Your task to perform on an android device: Open the stopwatch Image 0: 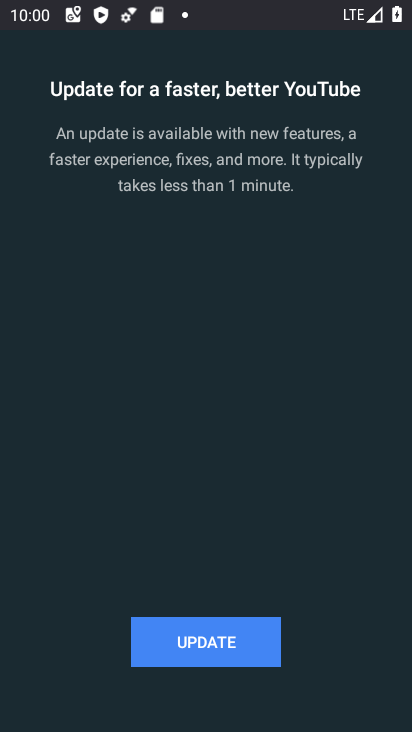
Step 0: press home button
Your task to perform on an android device: Open the stopwatch Image 1: 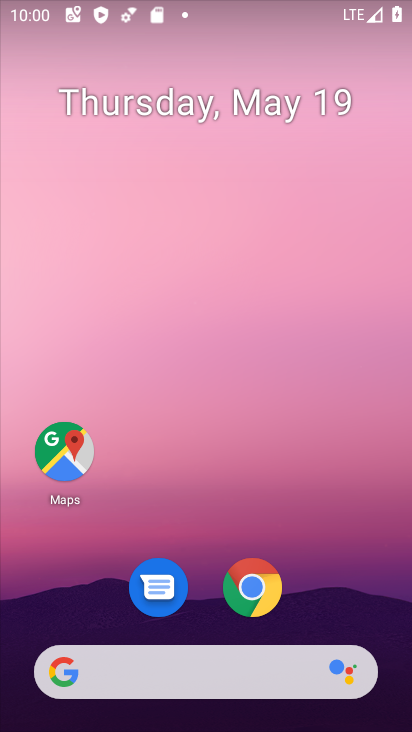
Step 1: drag from (202, 617) to (251, 100)
Your task to perform on an android device: Open the stopwatch Image 2: 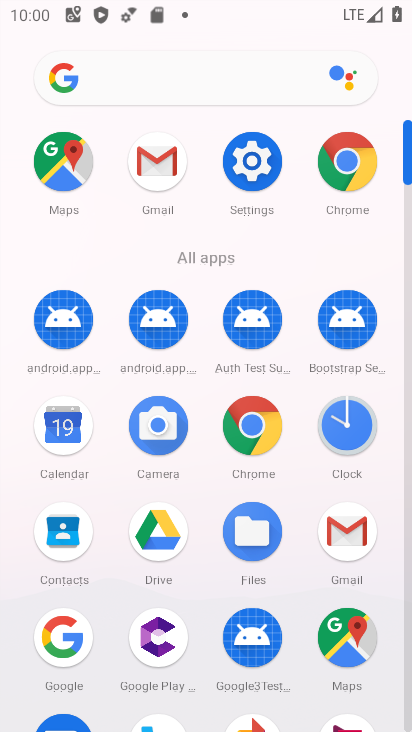
Step 2: click (341, 434)
Your task to perform on an android device: Open the stopwatch Image 3: 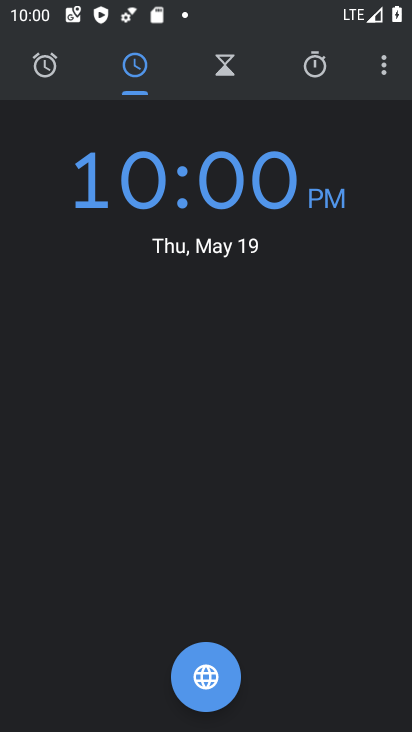
Step 3: click (317, 61)
Your task to perform on an android device: Open the stopwatch Image 4: 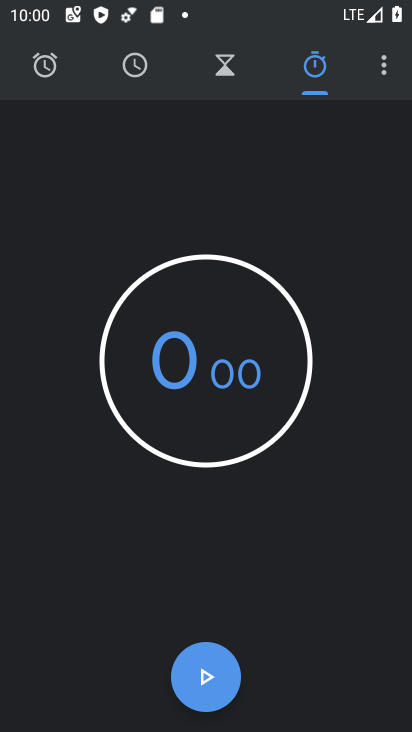
Step 4: task complete